Your task to perform on an android device: delete the emails in spam in the gmail app Image 0: 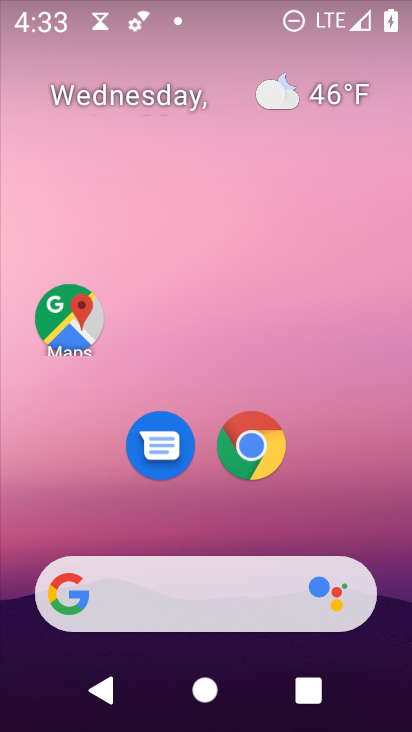
Step 0: drag from (307, 536) to (276, 43)
Your task to perform on an android device: delete the emails in spam in the gmail app Image 1: 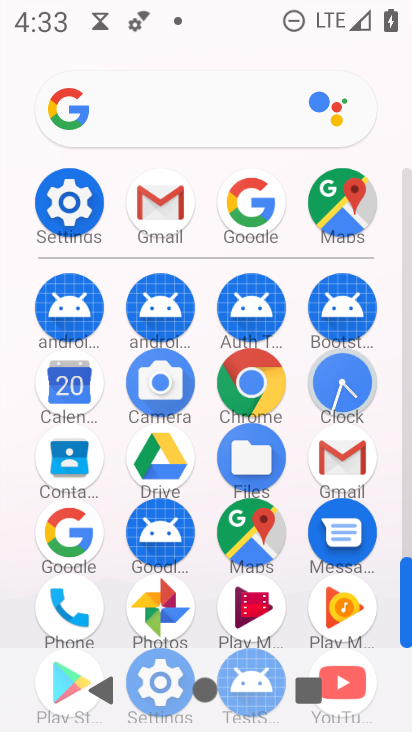
Step 1: click (164, 208)
Your task to perform on an android device: delete the emails in spam in the gmail app Image 2: 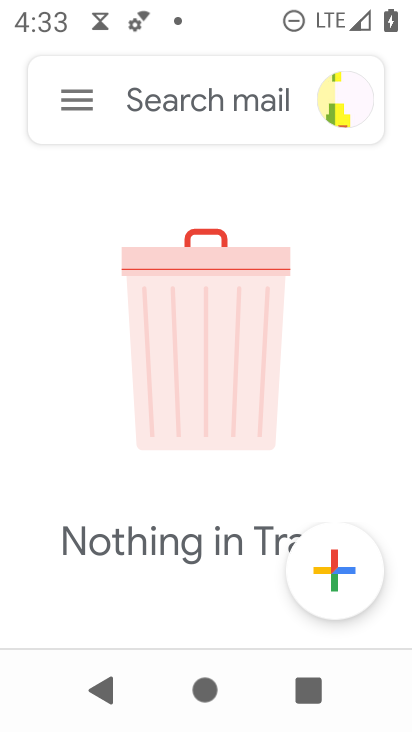
Step 2: click (76, 102)
Your task to perform on an android device: delete the emails in spam in the gmail app Image 3: 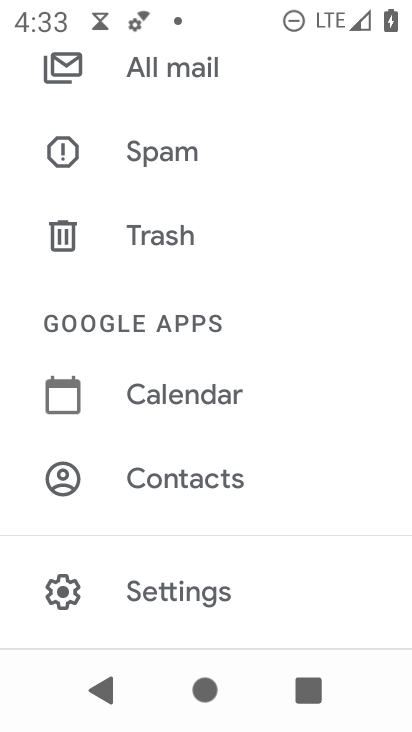
Step 3: click (183, 158)
Your task to perform on an android device: delete the emails in spam in the gmail app Image 4: 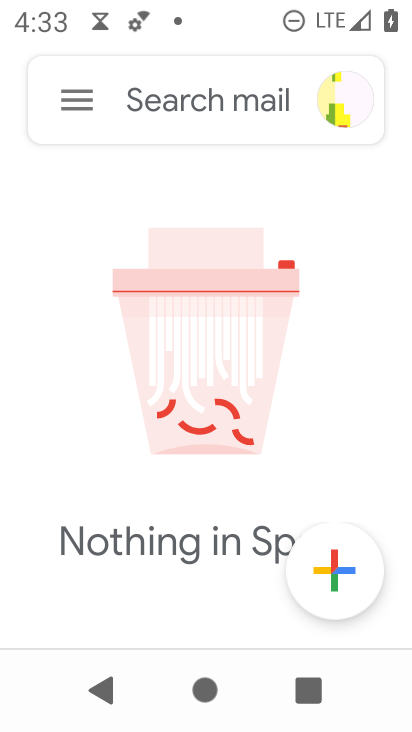
Step 4: task complete